Your task to perform on an android device: visit the assistant section in the google photos Image 0: 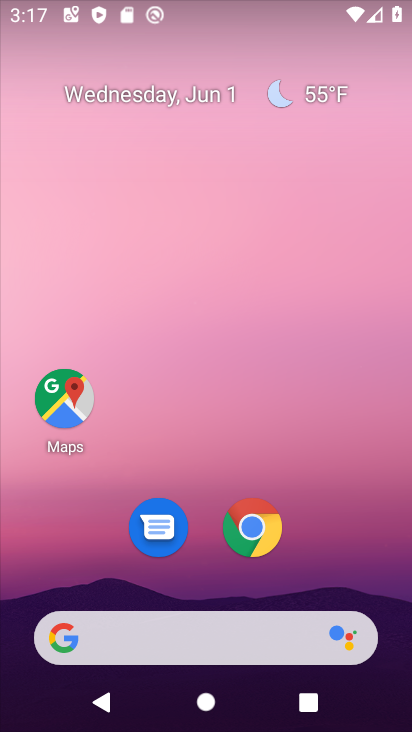
Step 0: press home button
Your task to perform on an android device: visit the assistant section in the google photos Image 1: 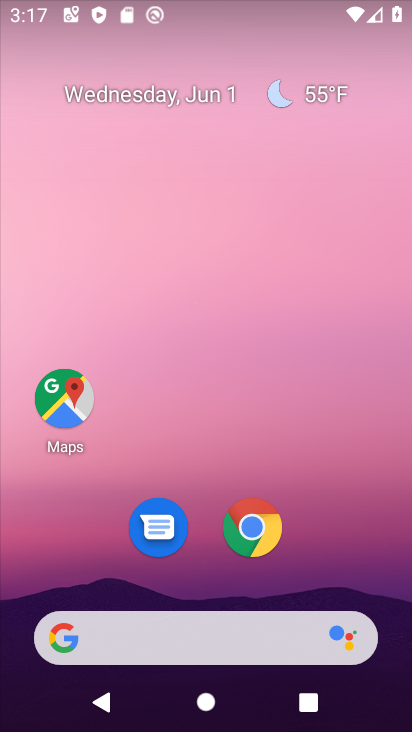
Step 1: drag from (351, 590) to (306, 100)
Your task to perform on an android device: visit the assistant section in the google photos Image 2: 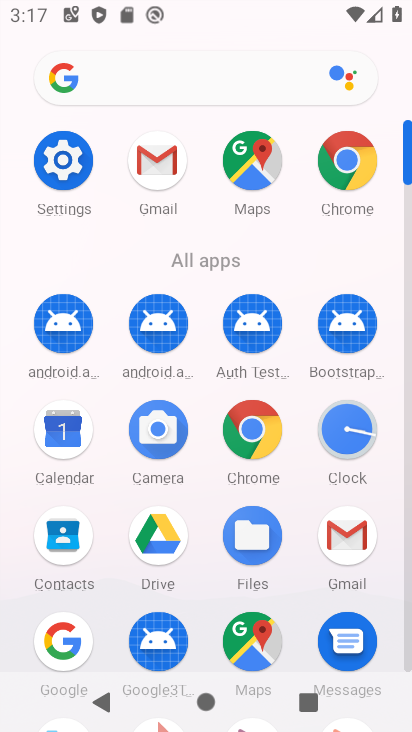
Step 2: click (400, 535)
Your task to perform on an android device: visit the assistant section in the google photos Image 3: 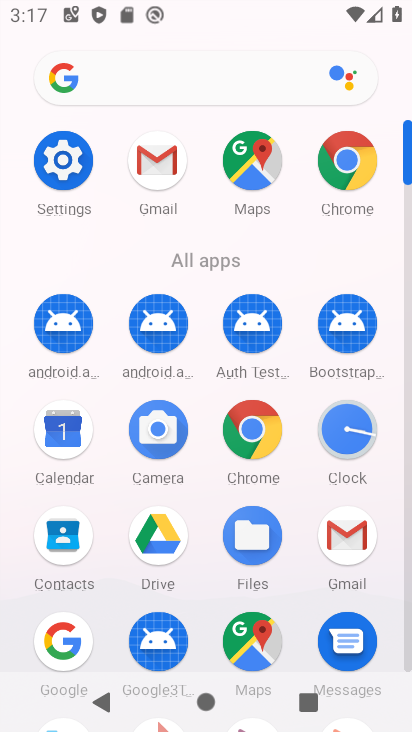
Step 3: click (408, 538)
Your task to perform on an android device: visit the assistant section in the google photos Image 4: 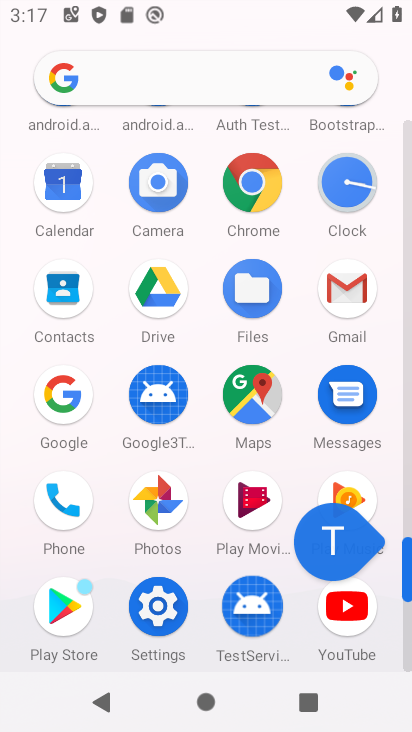
Step 4: click (408, 538)
Your task to perform on an android device: visit the assistant section in the google photos Image 5: 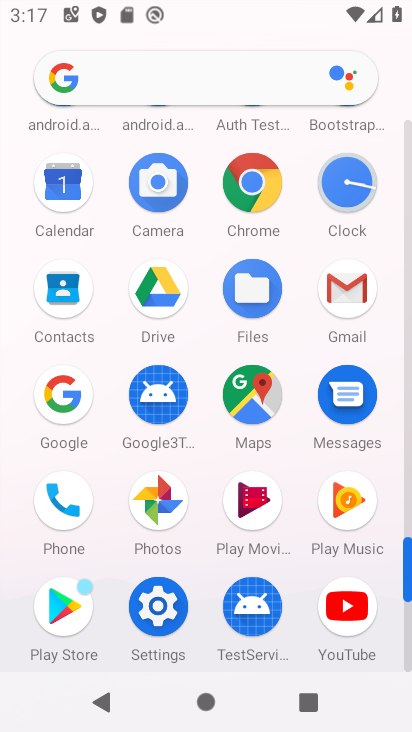
Step 5: click (408, 538)
Your task to perform on an android device: visit the assistant section in the google photos Image 6: 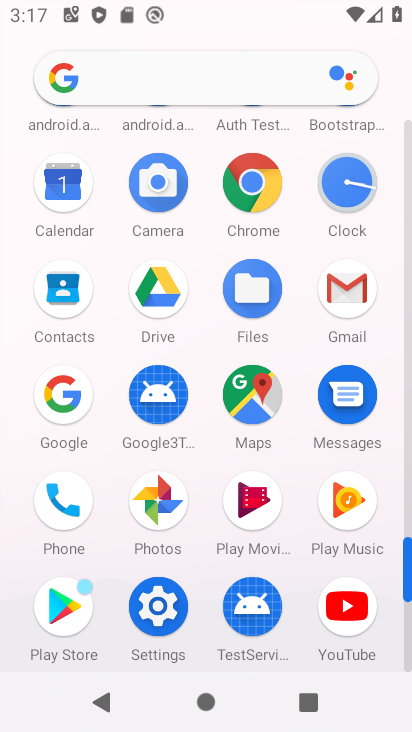
Step 6: click (165, 500)
Your task to perform on an android device: visit the assistant section in the google photos Image 7: 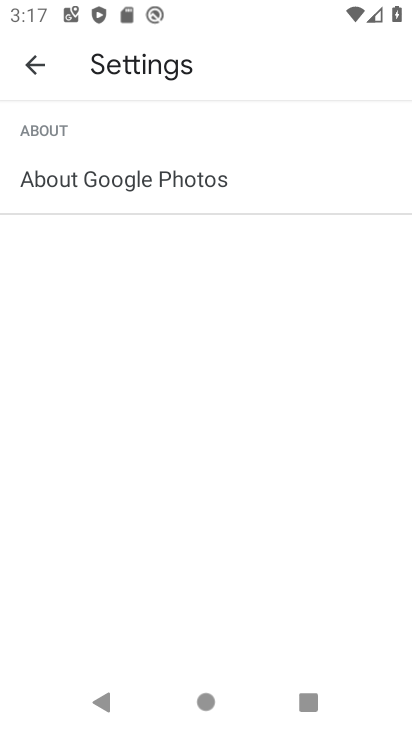
Step 7: click (23, 73)
Your task to perform on an android device: visit the assistant section in the google photos Image 8: 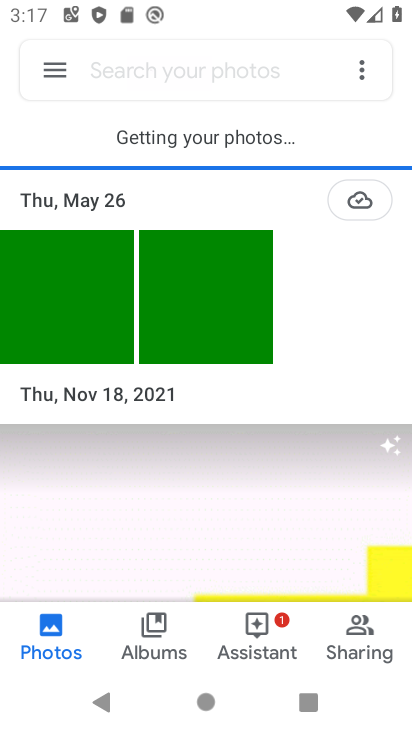
Step 8: click (266, 633)
Your task to perform on an android device: visit the assistant section in the google photos Image 9: 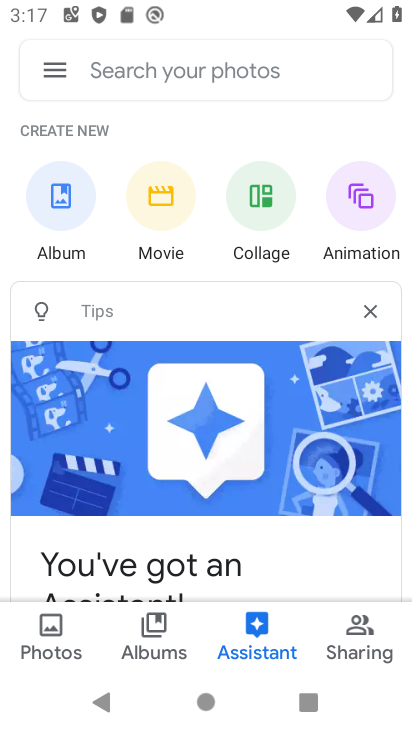
Step 9: task complete